Your task to perform on an android device: Go to Google maps Image 0: 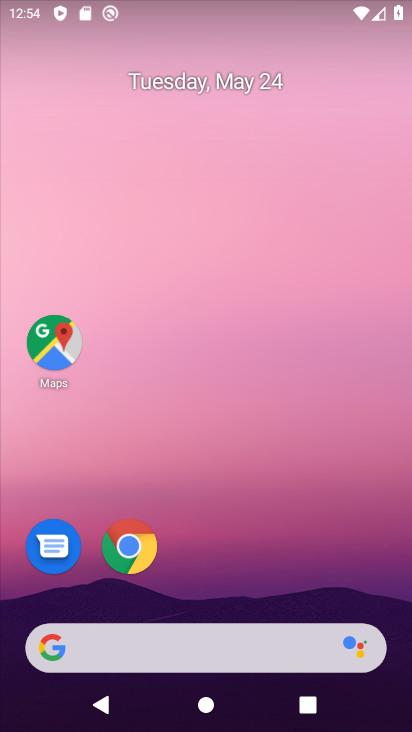
Step 0: click (57, 352)
Your task to perform on an android device: Go to Google maps Image 1: 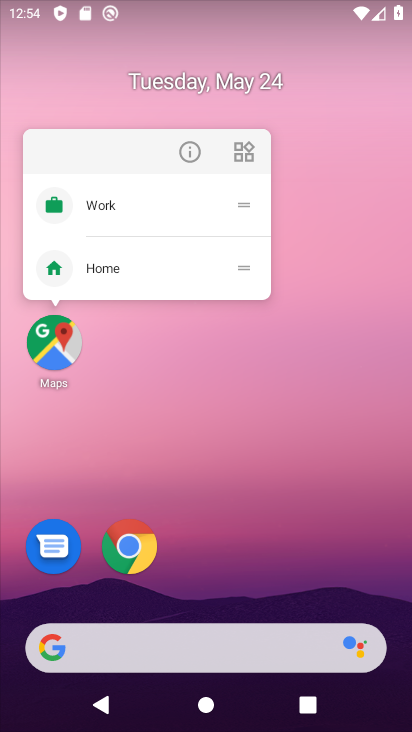
Step 1: click (63, 369)
Your task to perform on an android device: Go to Google maps Image 2: 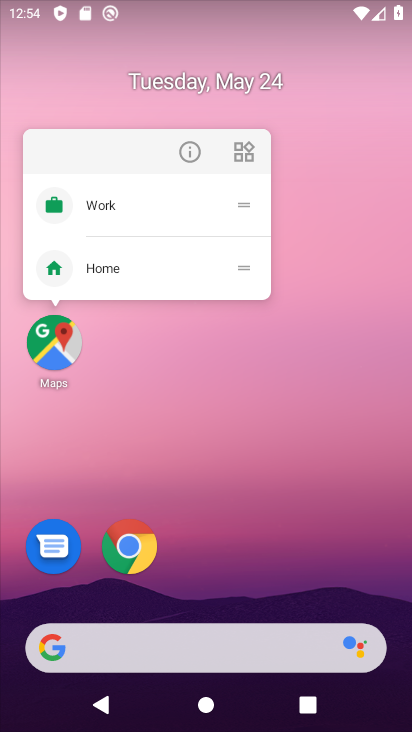
Step 2: click (39, 370)
Your task to perform on an android device: Go to Google maps Image 3: 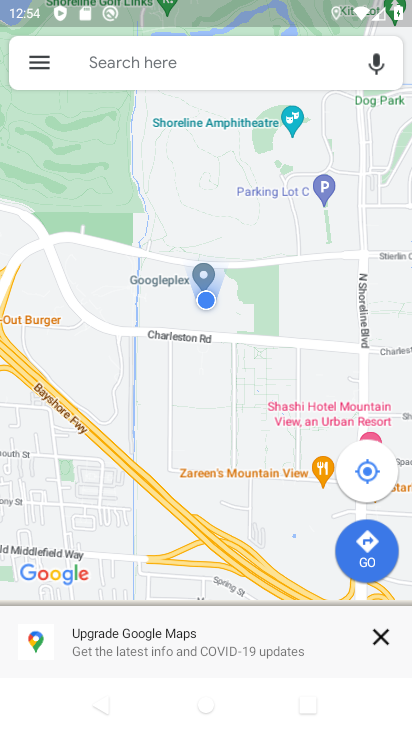
Step 3: task complete